Your task to perform on an android device: turn on notifications settings in the gmail app Image 0: 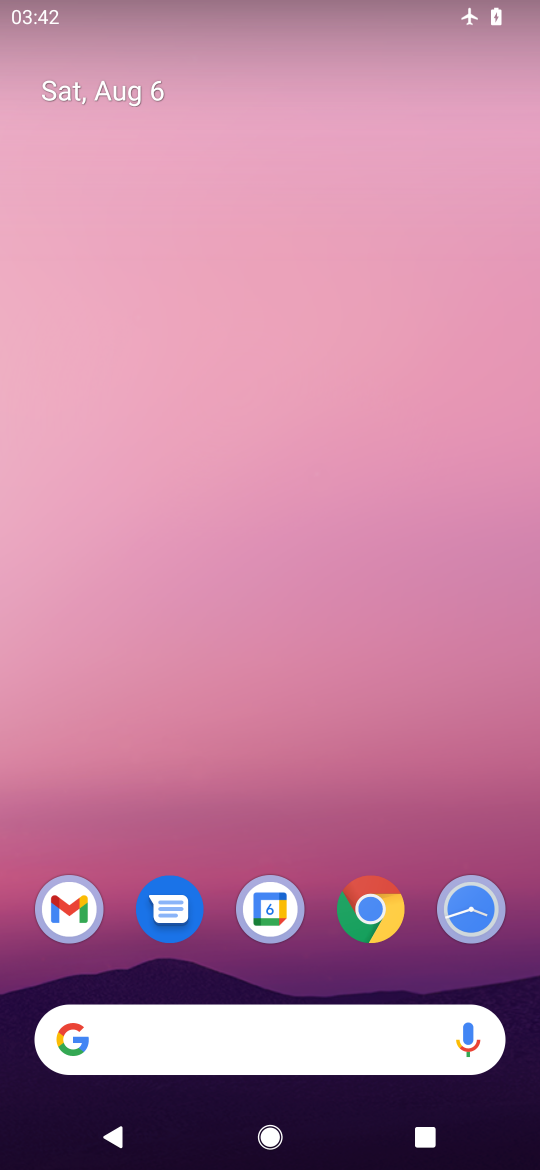
Step 0: click (48, 913)
Your task to perform on an android device: turn on notifications settings in the gmail app Image 1: 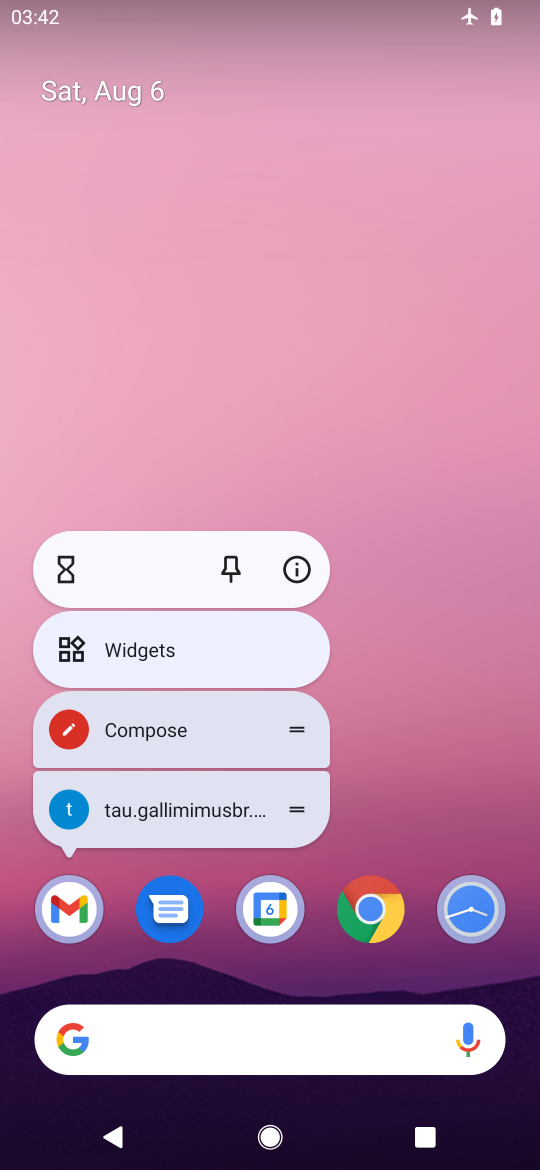
Step 1: click (295, 576)
Your task to perform on an android device: turn on notifications settings in the gmail app Image 2: 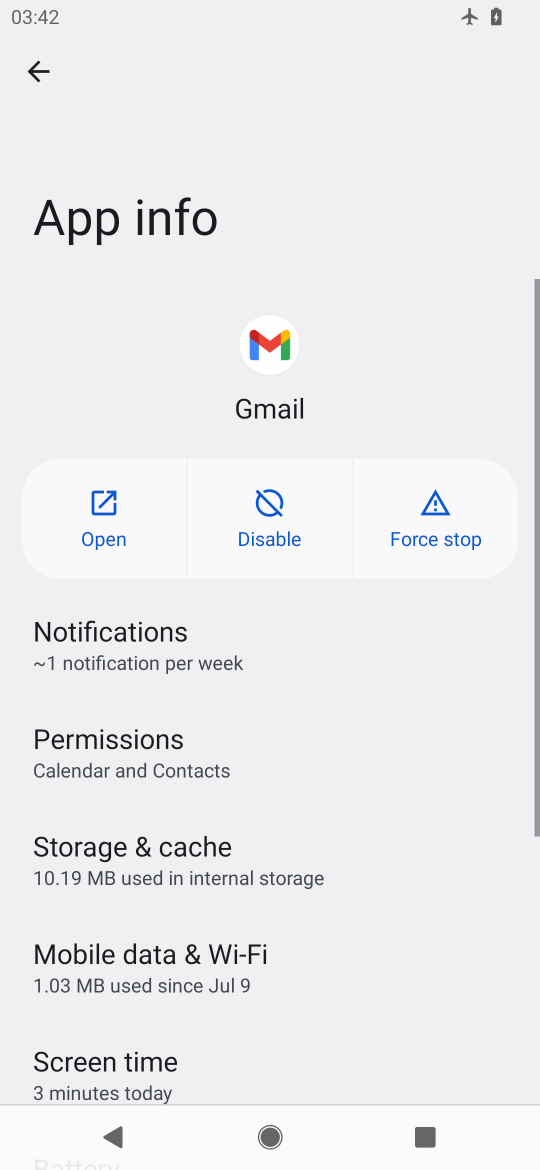
Step 2: click (201, 640)
Your task to perform on an android device: turn on notifications settings in the gmail app Image 3: 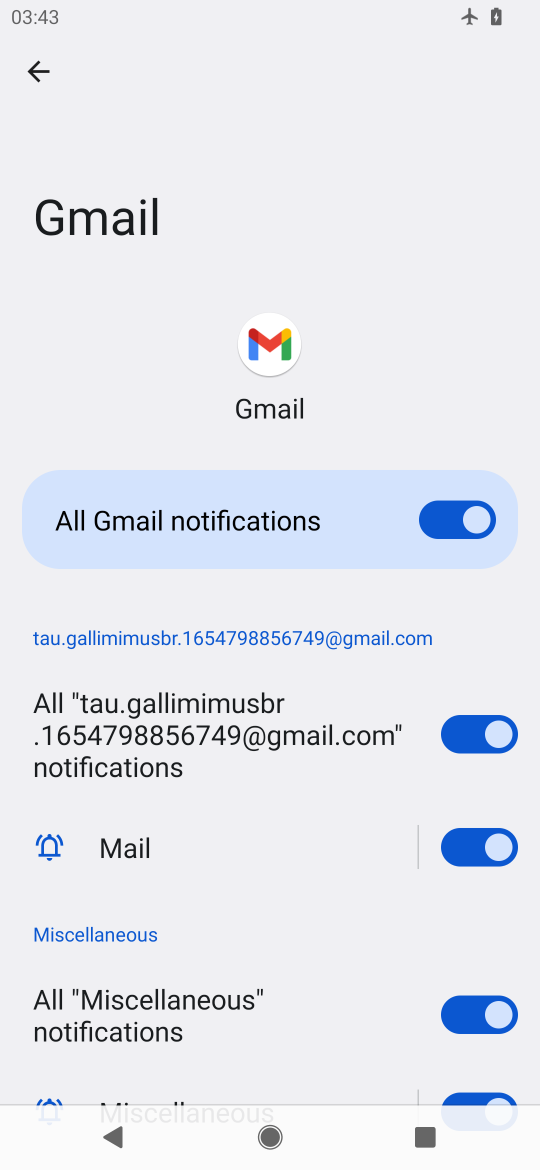
Step 3: task complete